Your task to perform on an android device: Go to Amazon Image 0: 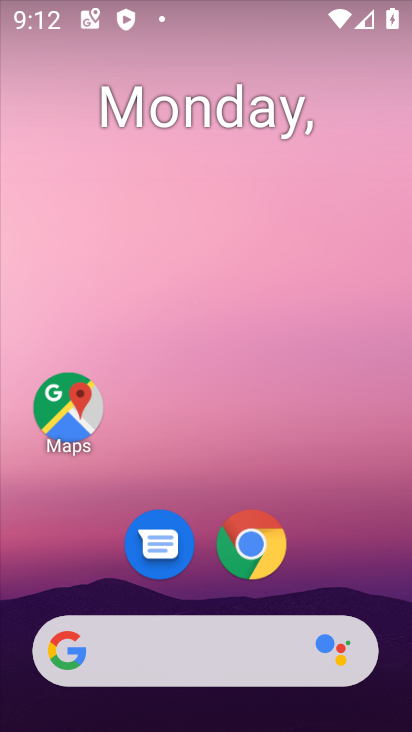
Step 0: drag from (335, 557) to (289, 97)
Your task to perform on an android device: Go to Amazon Image 1: 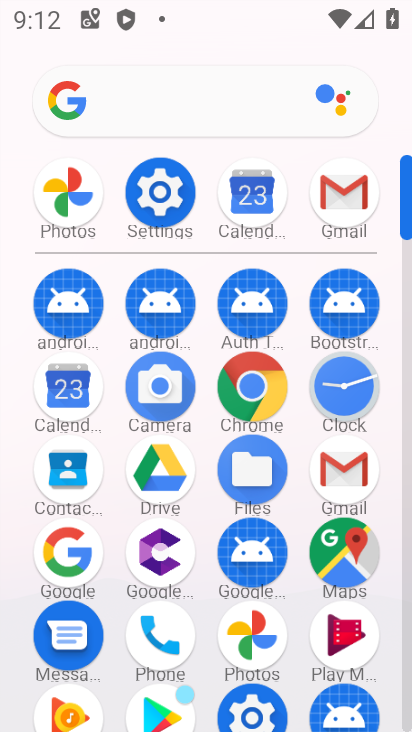
Step 1: click (259, 387)
Your task to perform on an android device: Go to Amazon Image 2: 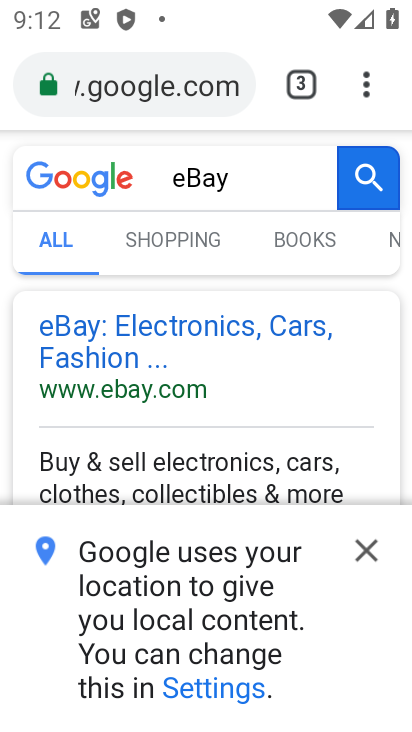
Step 2: click (372, 85)
Your task to perform on an android device: Go to Amazon Image 3: 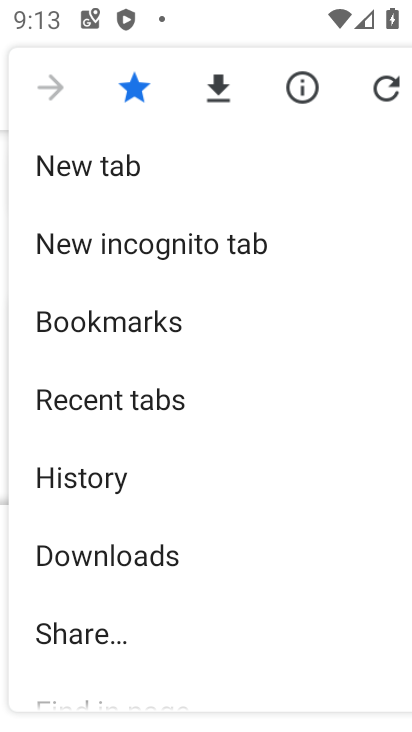
Step 3: click (96, 156)
Your task to perform on an android device: Go to Amazon Image 4: 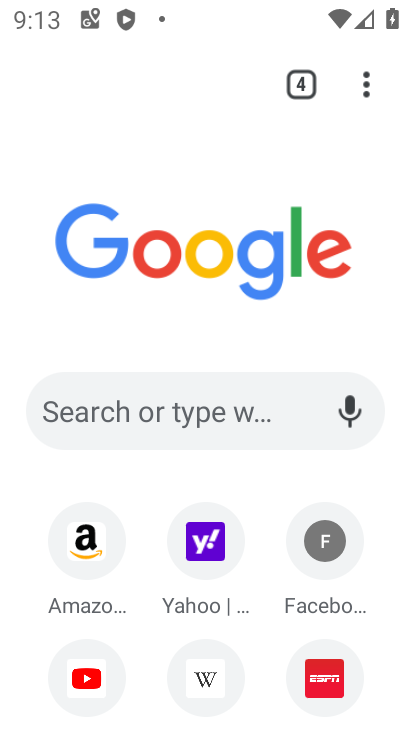
Step 4: click (77, 541)
Your task to perform on an android device: Go to Amazon Image 5: 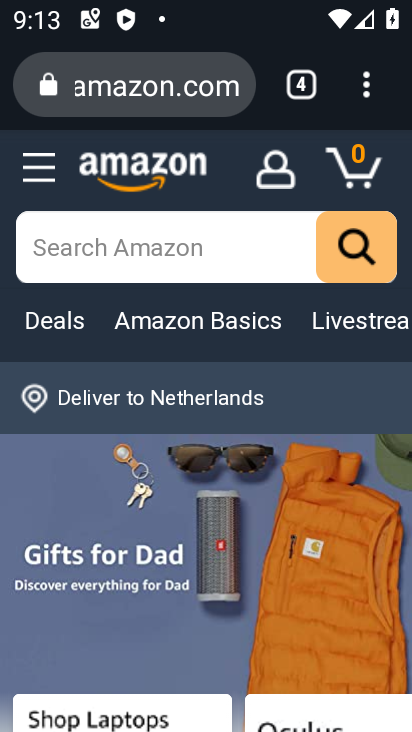
Step 5: task complete